Your task to perform on an android device: find which apps use the phone's location Image 0: 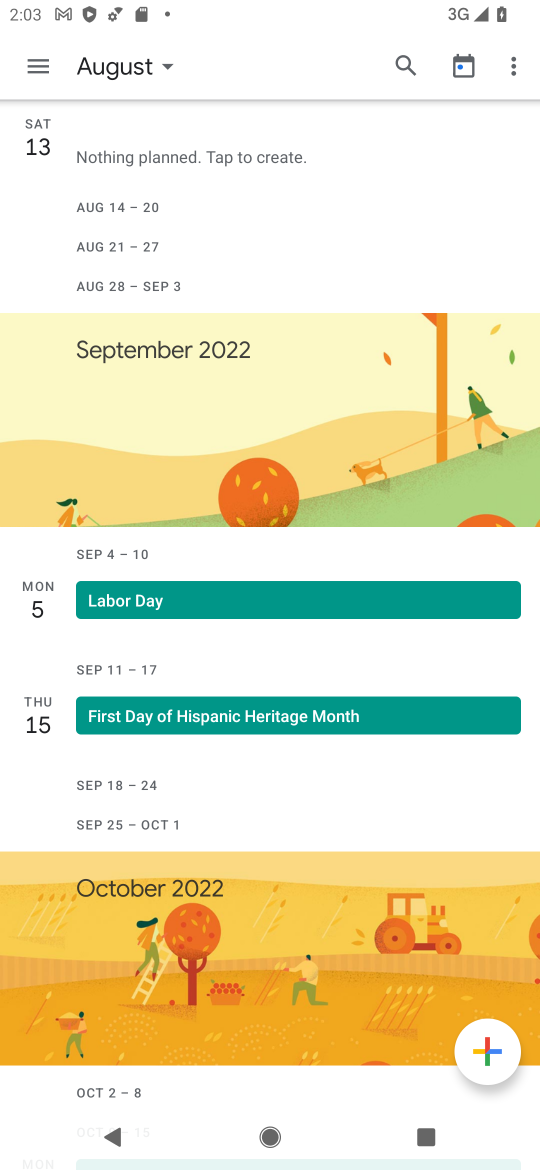
Step 0: press home button
Your task to perform on an android device: find which apps use the phone's location Image 1: 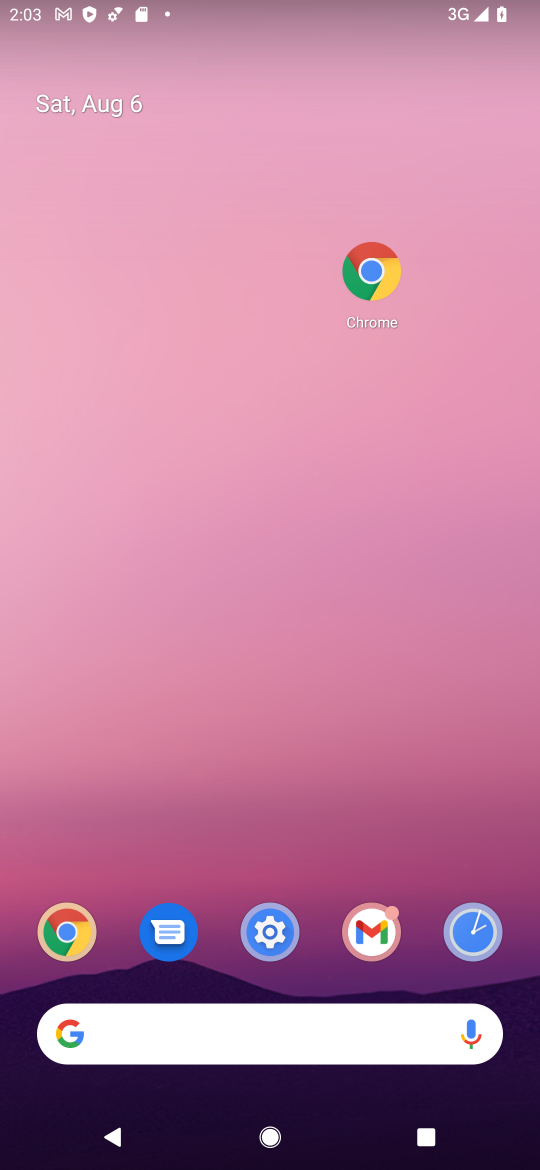
Step 1: drag from (316, 988) to (296, 64)
Your task to perform on an android device: find which apps use the phone's location Image 2: 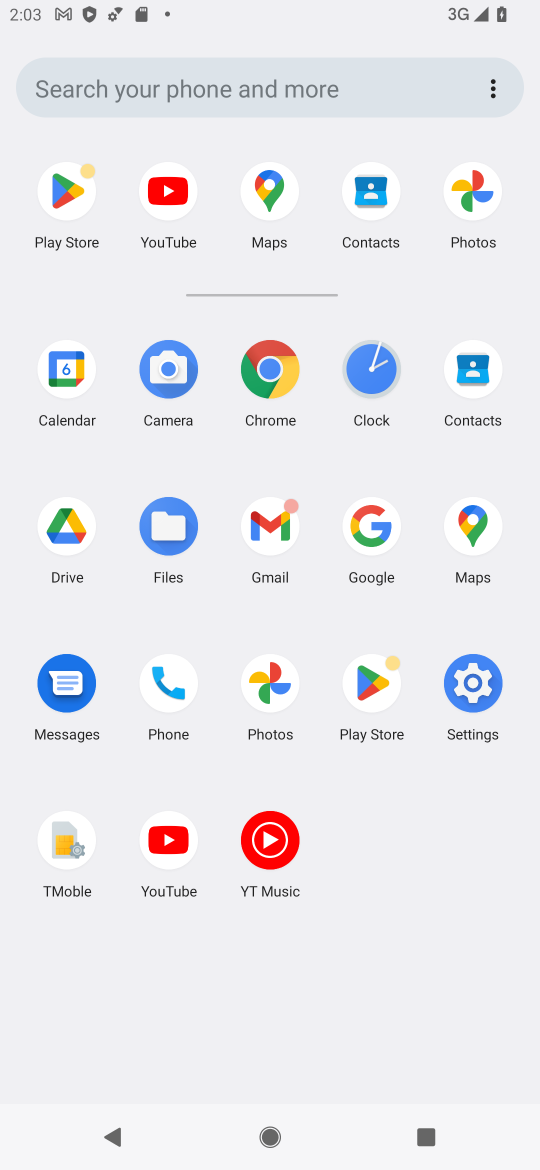
Step 2: click (171, 686)
Your task to perform on an android device: find which apps use the phone's location Image 3: 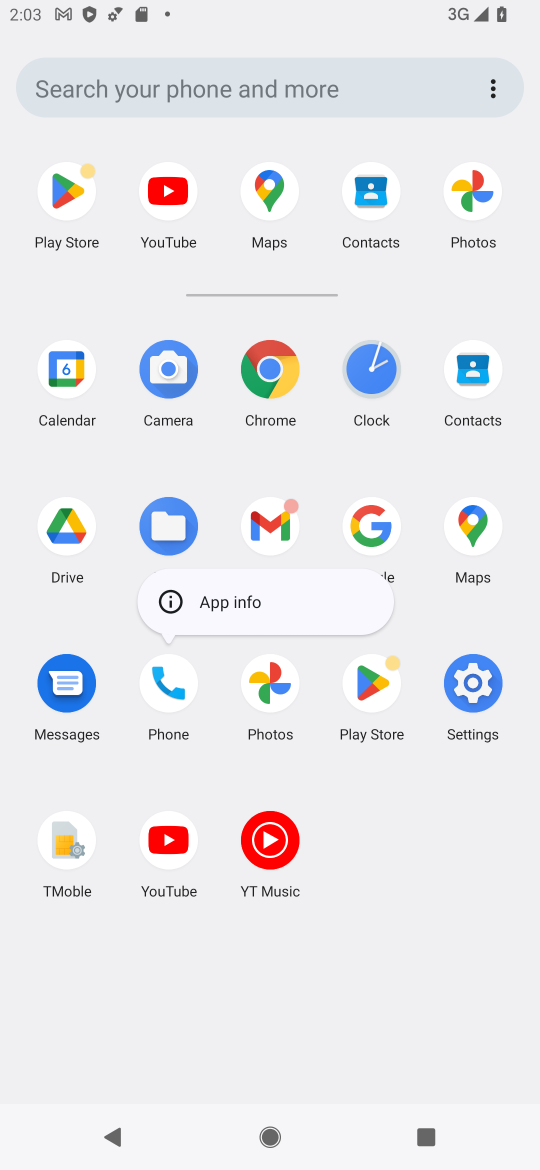
Step 3: click (167, 673)
Your task to perform on an android device: find which apps use the phone's location Image 4: 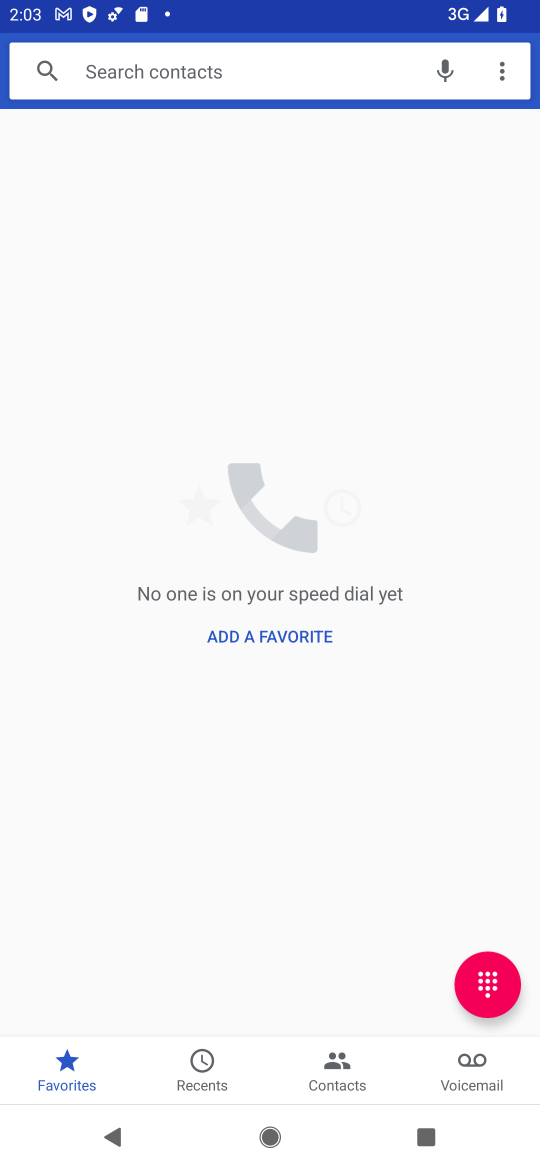
Step 4: press home button
Your task to perform on an android device: find which apps use the phone's location Image 5: 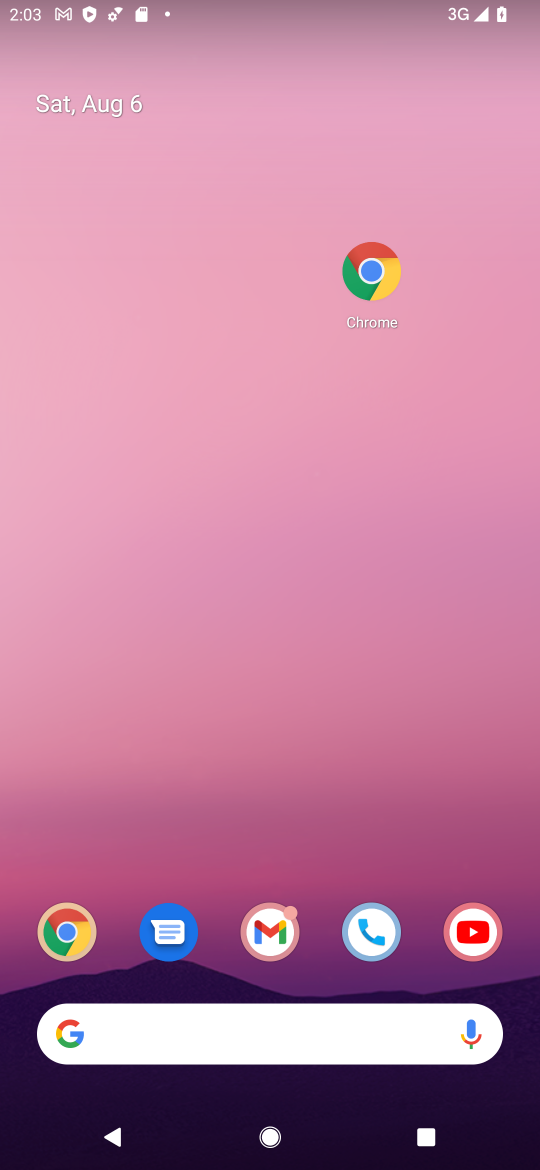
Step 5: click (369, 936)
Your task to perform on an android device: find which apps use the phone's location Image 6: 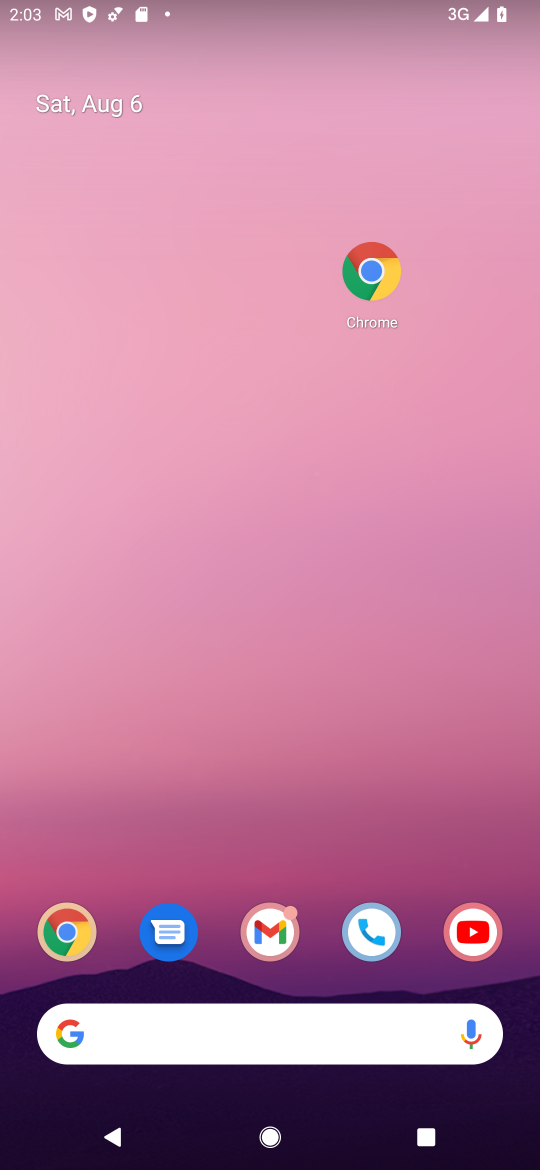
Step 6: click (367, 931)
Your task to perform on an android device: find which apps use the phone's location Image 7: 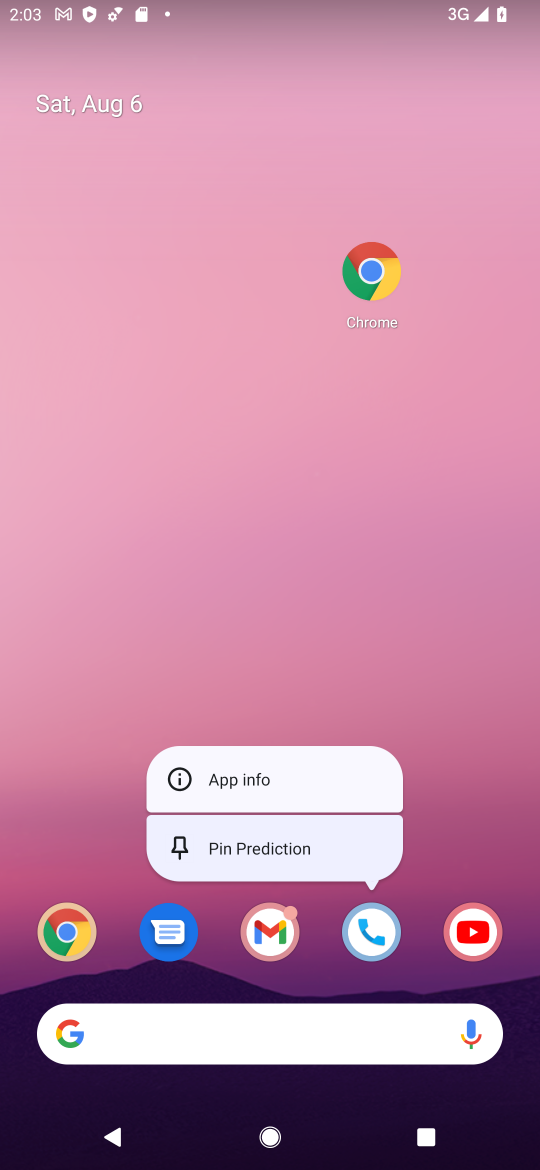
Step 7: click (298, 777)
Your task to perform on an android device: find which apps use the phone's location Image 8: 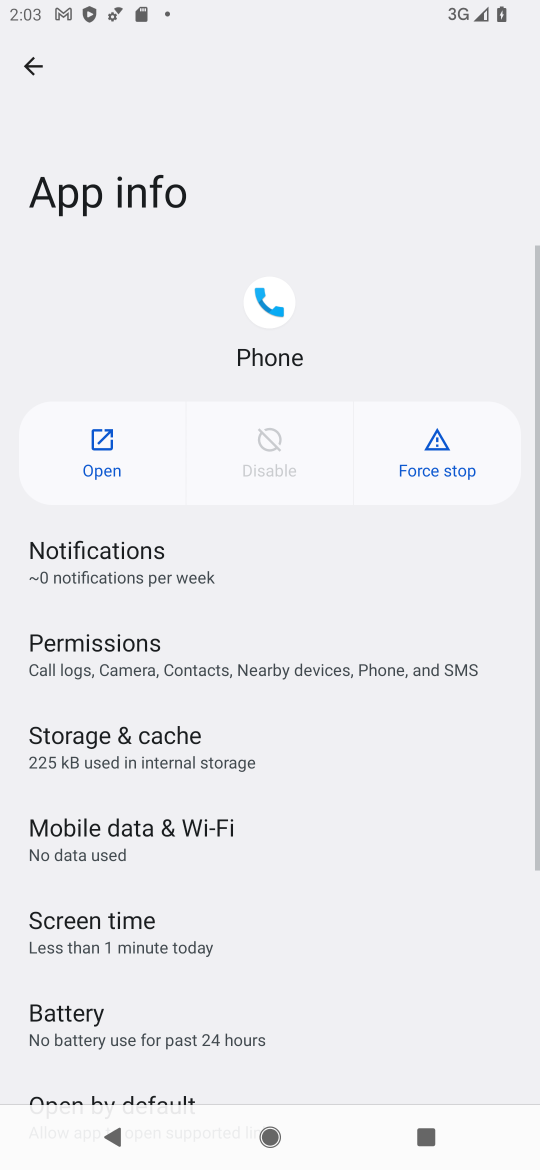
Step 8: click (158, 646)
Your task to perform on an android device: find which apps use the phone's location Image 9: 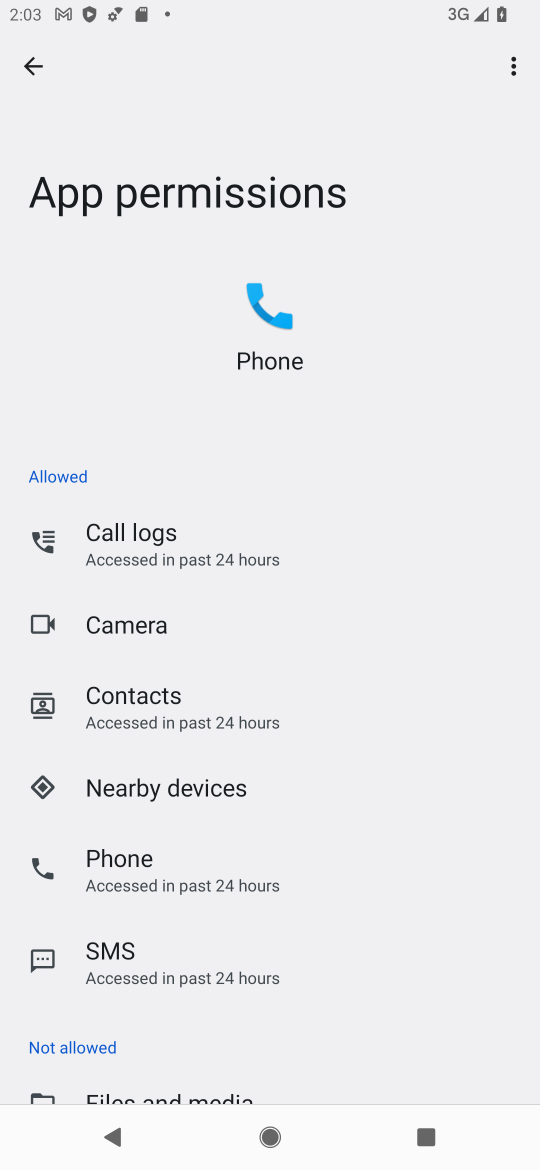
Step 9: drag from (243, 974) to (288, 576)
Your task to perform on an android device: find which apps use the phone's location Image 10: 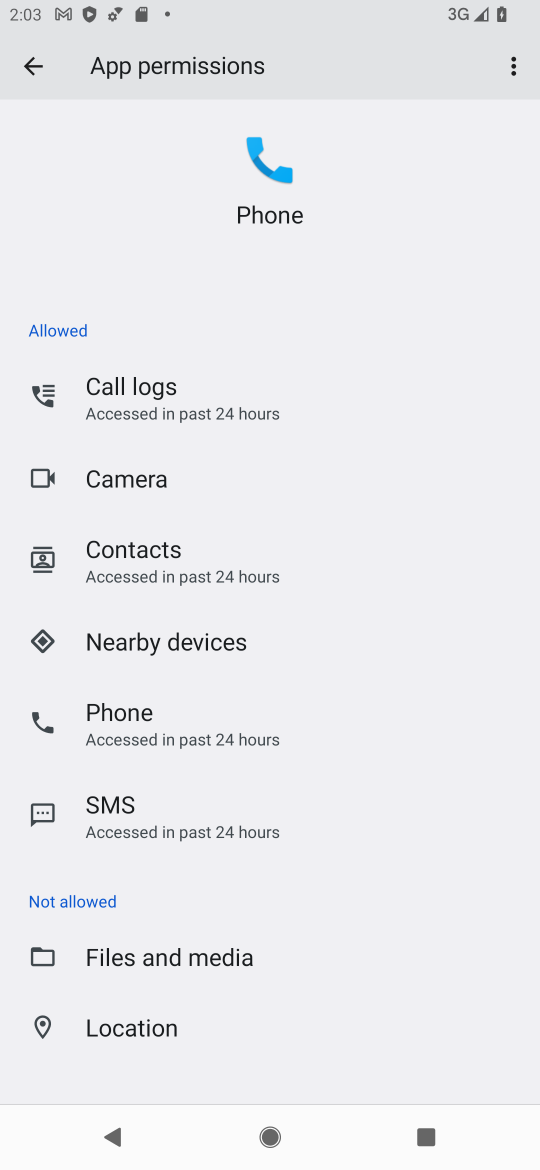
Step 10: click (155, 1022)
Your task to perform on an android device: find which apps use the phone's location Image 11: 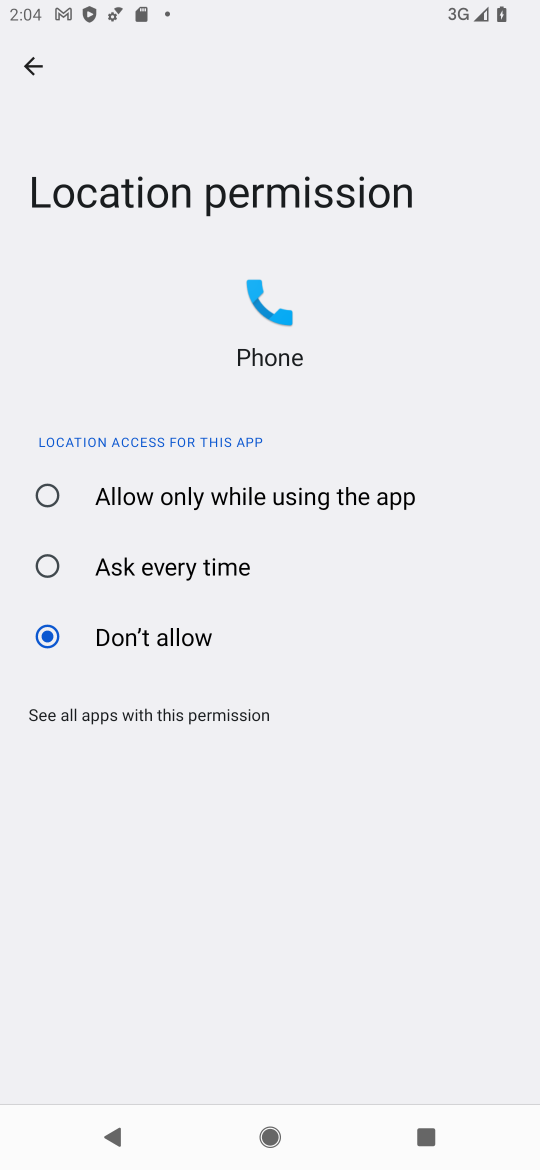
Step 11: task complete